Your task to perform on an android device: see creations saved in the google photos Image 0: 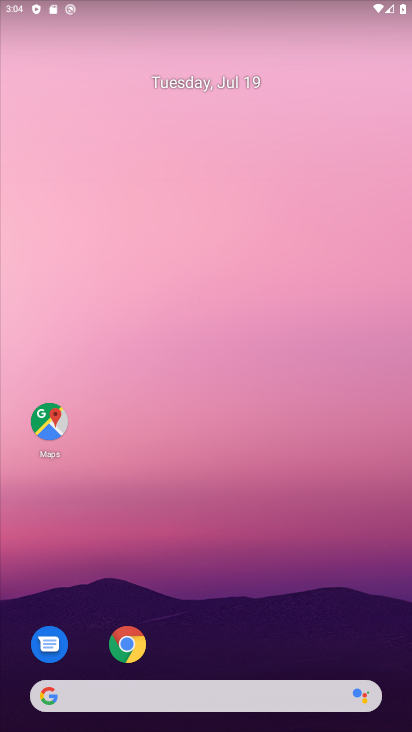
Step 0: drag from (248, 693) to (220, 173)
Your task to perform on an android device: see creations saved in the google photos Image 1: 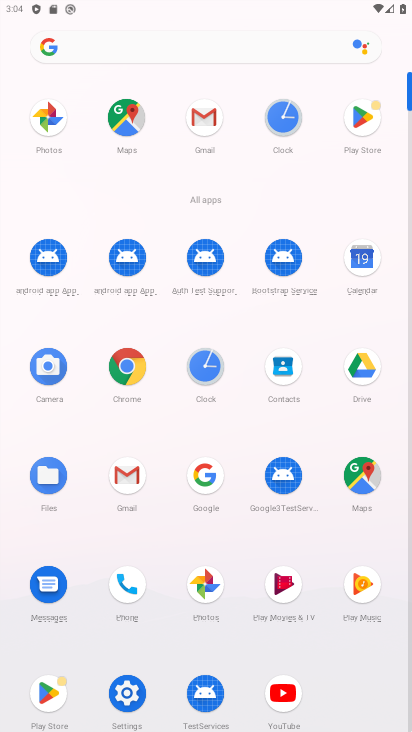
Step 1: click (216, 575)
Your task to perform on an android device: see creations saved in the google photos Image 2: 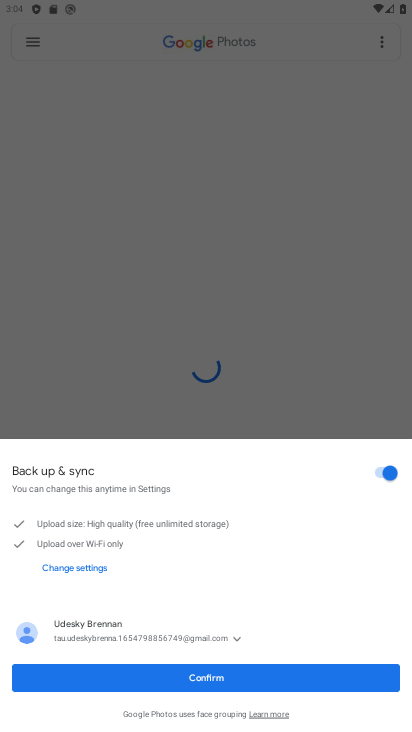
Step 2: click (197, 673)
Your task to perform on an android device: see creations saved in the google photos Image 3: 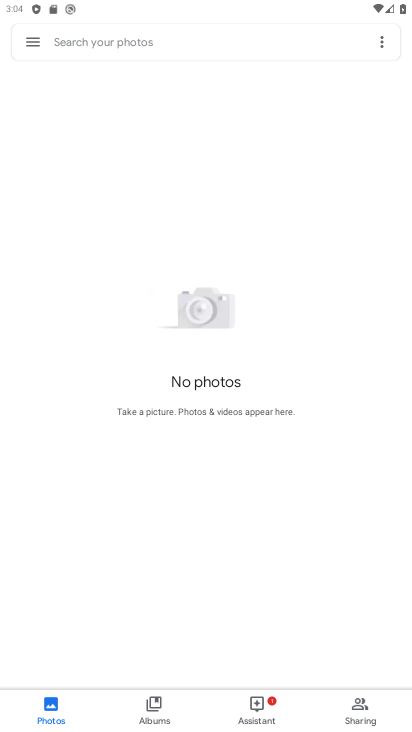
Step 3: click (181, 49)
Your task to perform on an android device: see creations saved in the google photos Image 4: 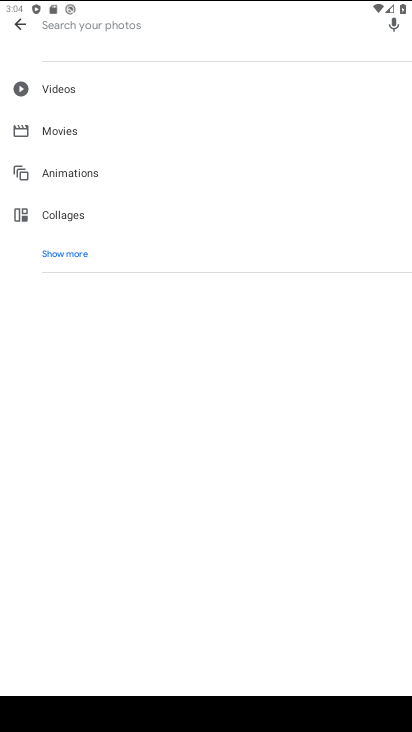
Step 4: click (77, 256)
Your task to perform on an android device: see creations saved in the google photos Image 5: 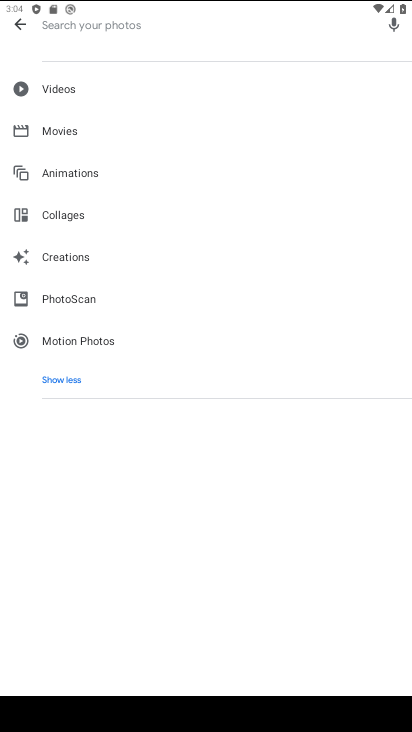
Step 5: click (78, 258)
Your task to perform on an android device: see creations saved in the google photos Image 6: 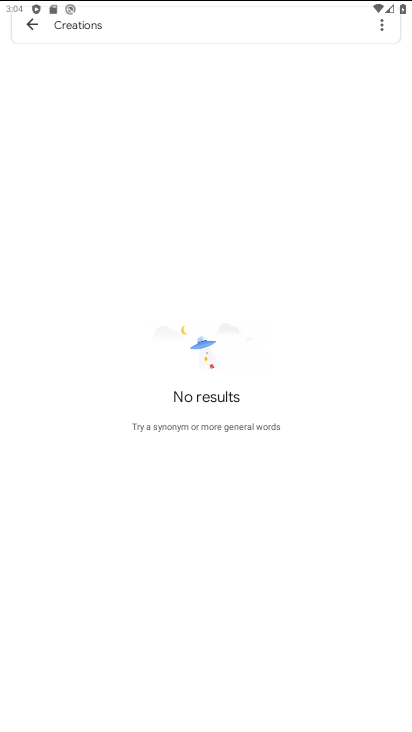
Step 6: task complete